Your task to perform on an android device: turn off priority inbox in the gmail app Image 0: 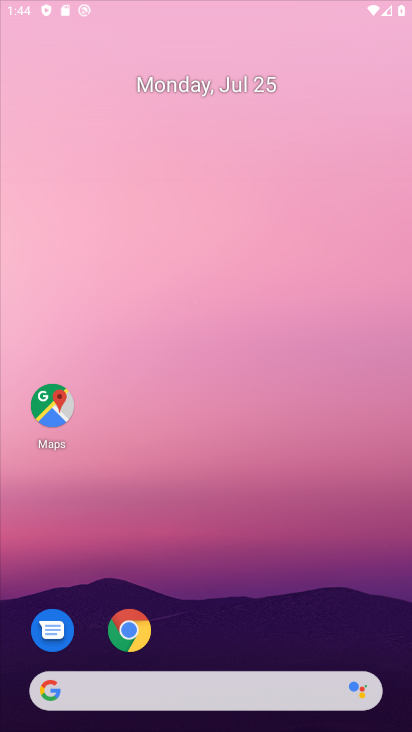
Step 0: click (128, 96)
Your task to perform on an android device: turn off priority inbox in the gmail app Image 1: 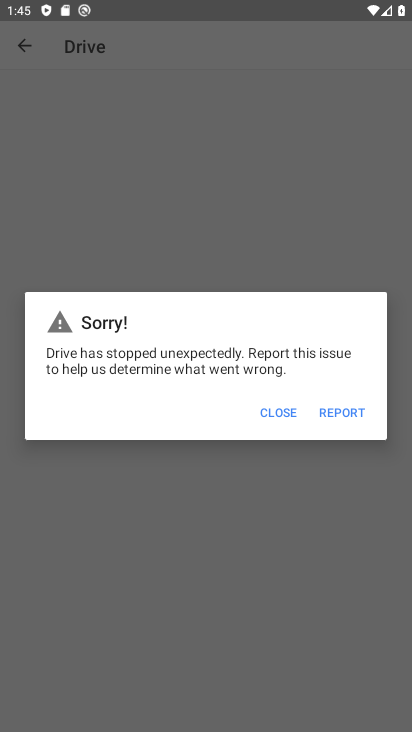
Step 1: press home button
Your task to perform on an android device: turn off priority inbox in the gmail app Image 2: 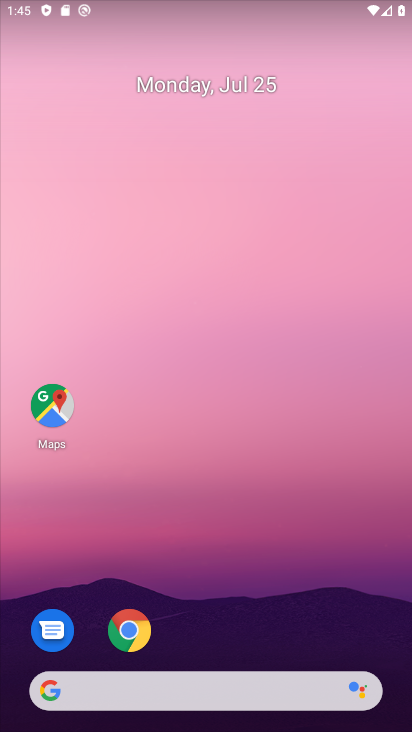
Step 2: drag from (278, 625) to (203, 46)
Your task to perform on an android device: turn off priority inbox in the gmail app Image 3: 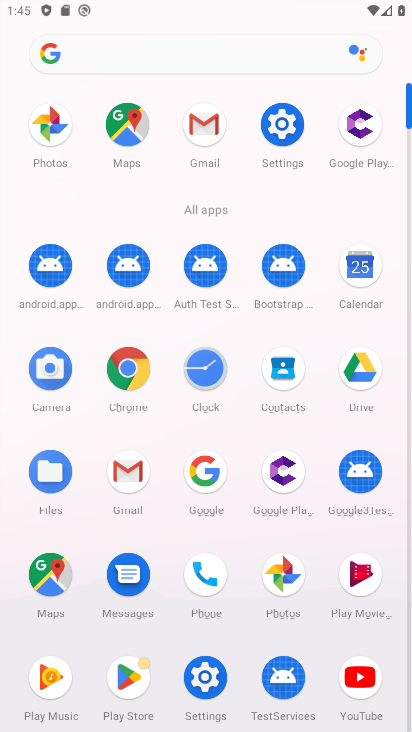
Step 3: click (211, 142)
Your task to perform on an android device: turn off priority inbox in the gmail app Image 4: 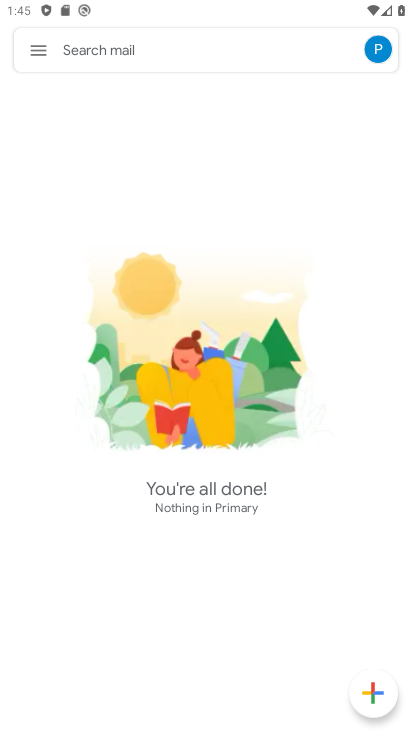
Step 4: click (39, 48)
Your task to perform on an android device: turn off priority inbox in the gmail app Image 5: 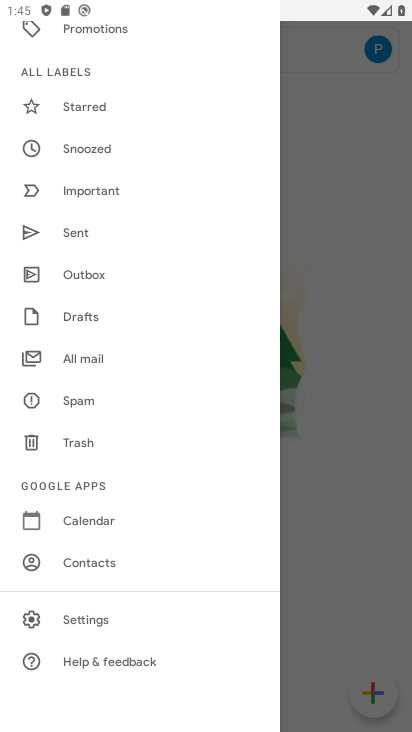
Step 5: click (121, 609)
Your task to perform on an android device: turn off priority inbox in the gmail app Image 6: 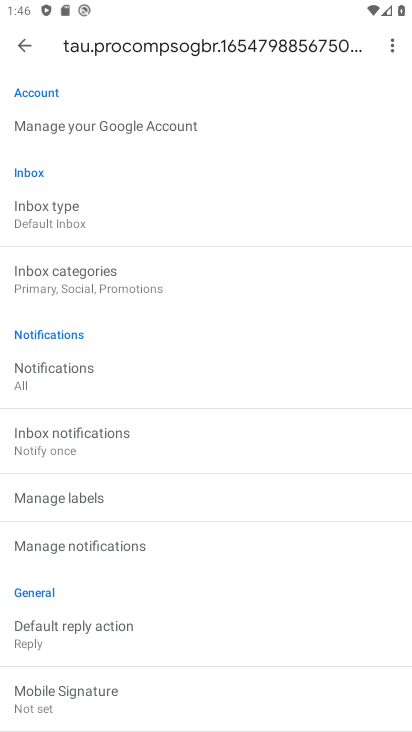
Step 6: click (103, 233)
Your task to perform on an android device: turn off priority inbox in the gmail app Image 7: 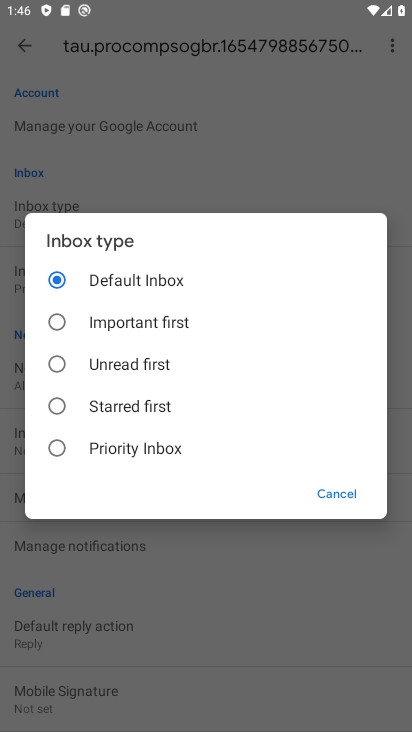
Step 7: task complete